Your task to perform on an android device: star an email in the gmail app Image 0: 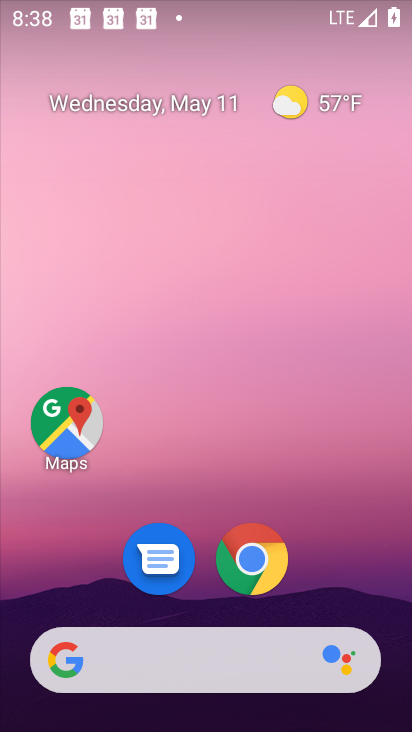
Step 0: press home button
Your task to perform on an android device: star an email in the gmail app Image 1: 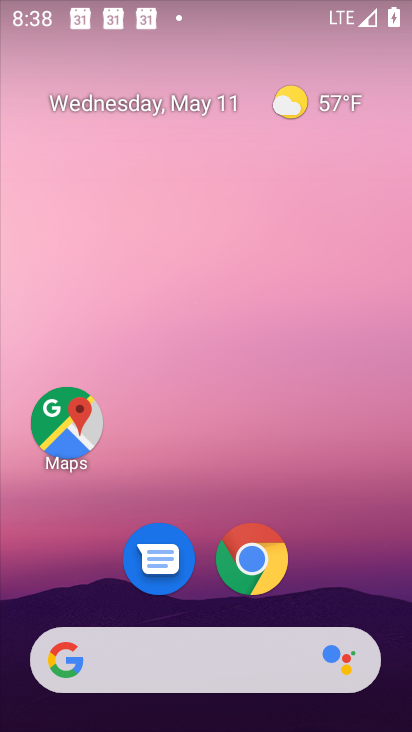
Step 1: drag from (332, 540) to (322, 49)
Your task to perform on an android device: star an email in the gmail app Image 2: 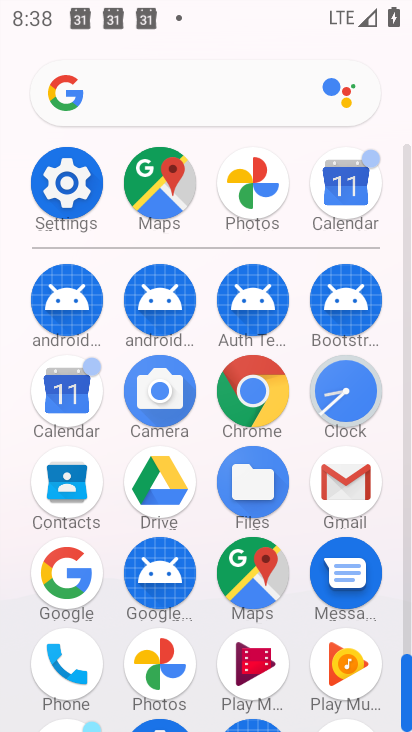
Step 2: click (361, 499)
Your task to perform on an android device: star an email in the gmail app Image 3: 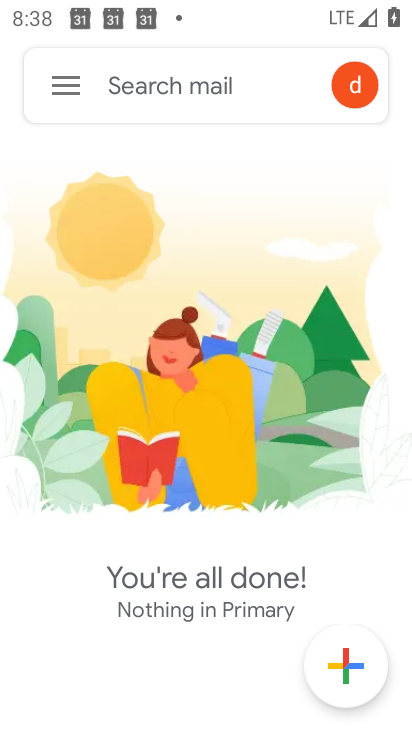
Step 3: click (51, 82)
Your task to perform on an android device: star an email in the gmail app Image 4: 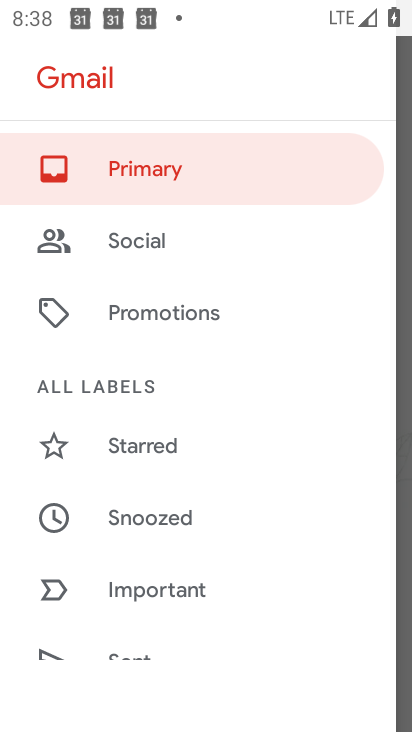
Step 4: task complete